Your task to perform on an android device: Toggle the flashlight Image 0: 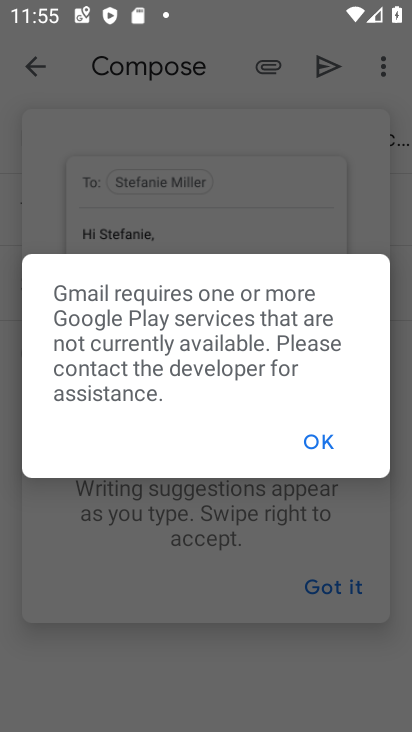
Step 0: press home button
Your task to perform on an android device: Toggle the flashlight Image 1: 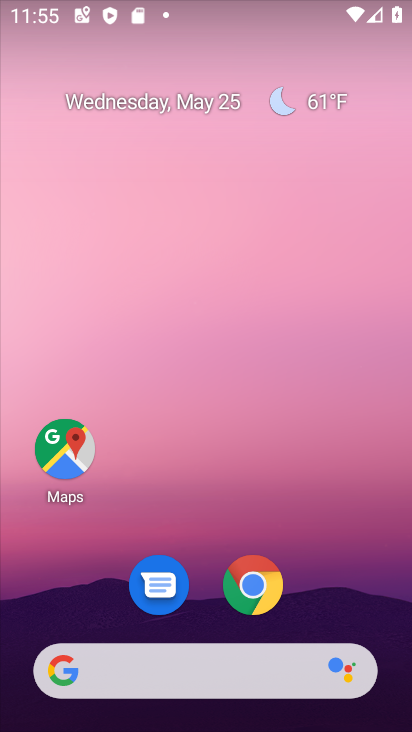
Step 1: drag from (203, 541) to (230, 41)
Your task to perform on an android device: Toggle the flashlight Image 2: 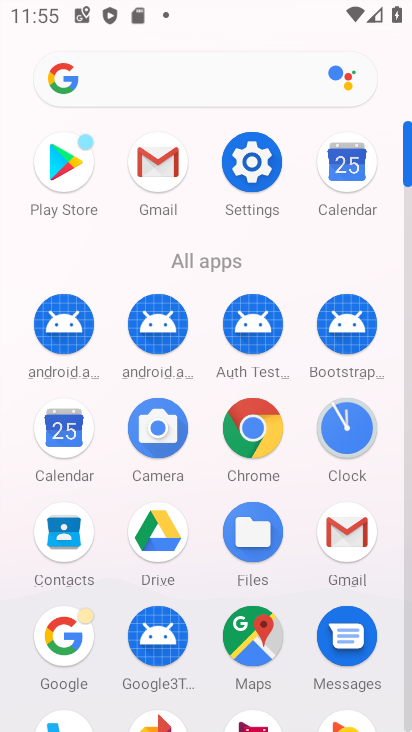
Step 2: click (240, 160)
Your task to perform on an android device: Toggle the flashlight Image 3: 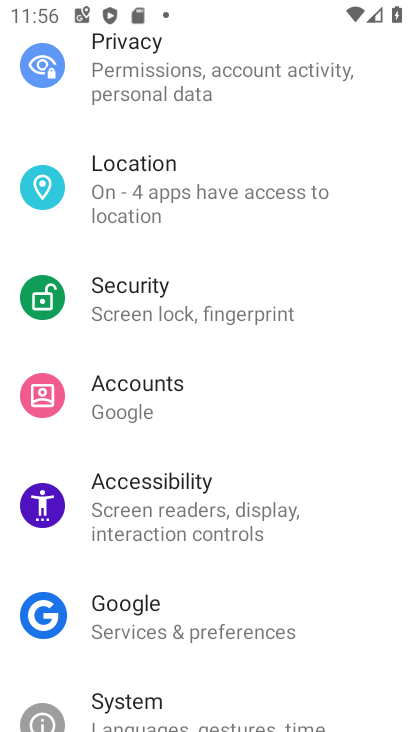
Step 3: drag from (184, 259) to (203, 679)
Your task to perform on an android device: Toggle the flashlight Image 4: 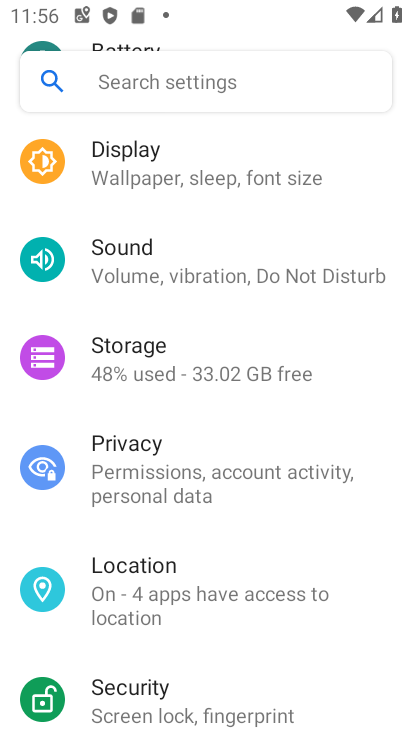
Step 4: click (244, 162)
Your task to perform on an android device: Toggle the flashlight Image 5: 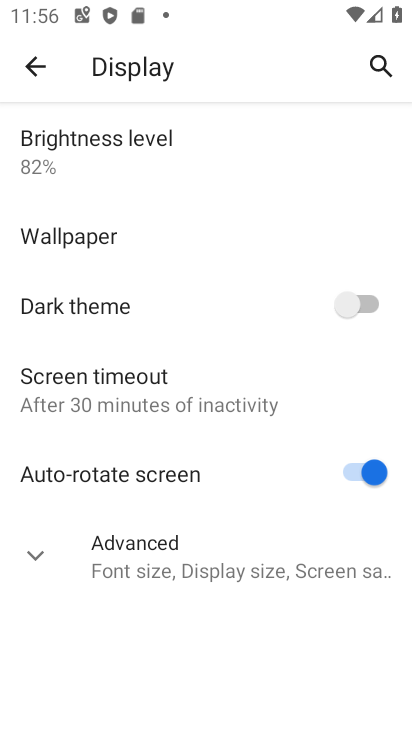
Step 5: click (36, 546)
Your task to perform on an android device: Toggle the flashlight Image 6: 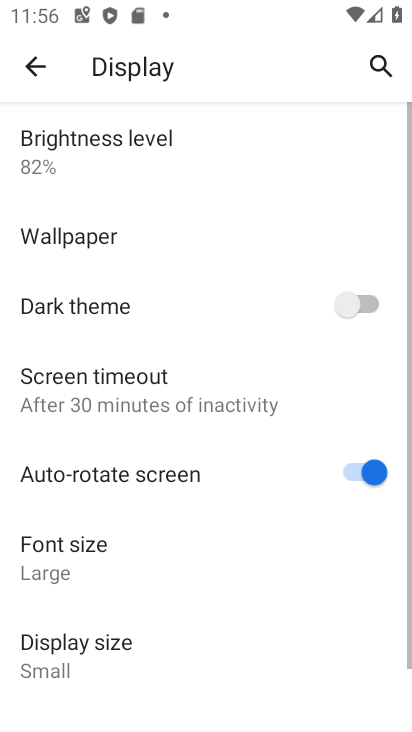
Step 6: click (143, 553)
Your task to perform on an android device: Toggle the flashlight Image 7: 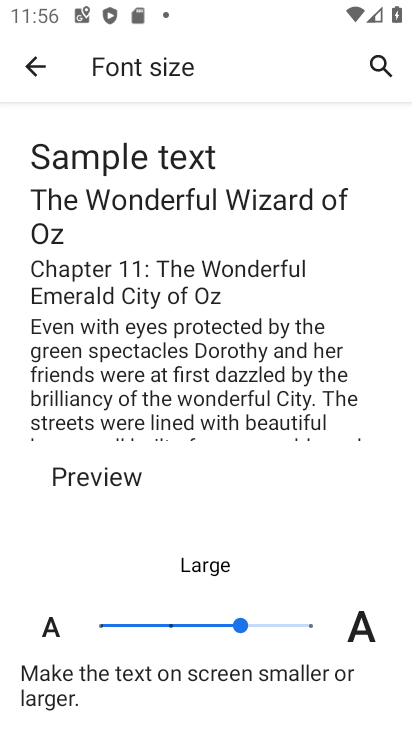
Step 7: click (165, 618)
Your task to perform on an android device: Toggle the flashlight Image 8: 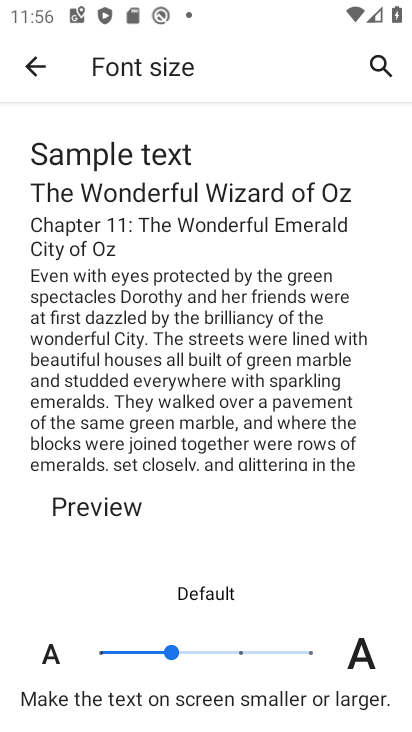
Step 8: click (104, 648)
Your task to perform on an android device: Toggle the flashlight Image 9: 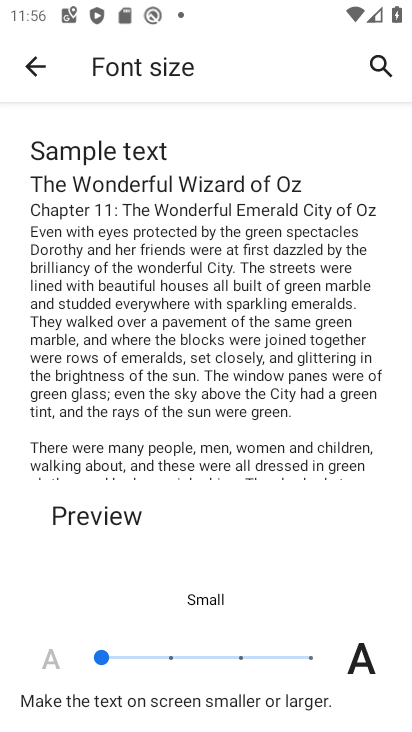
Step 9: click (36, 64)
Your task to perform on an android device: Toggle the flashlight Image 10: 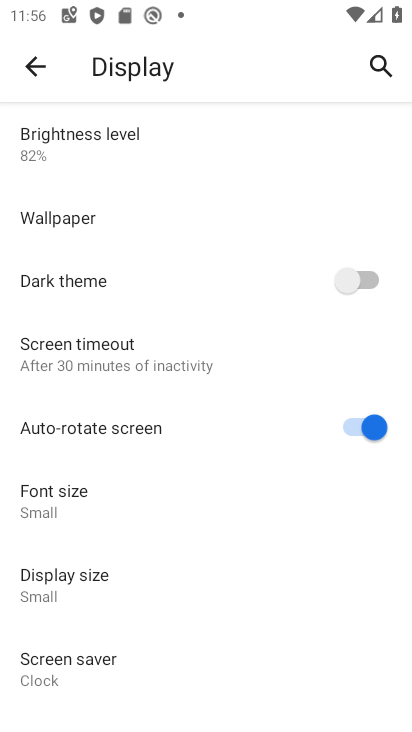
Step 10: click (34, 60)
Your task to perform on an android device: Toggle the flashlight Image 11: 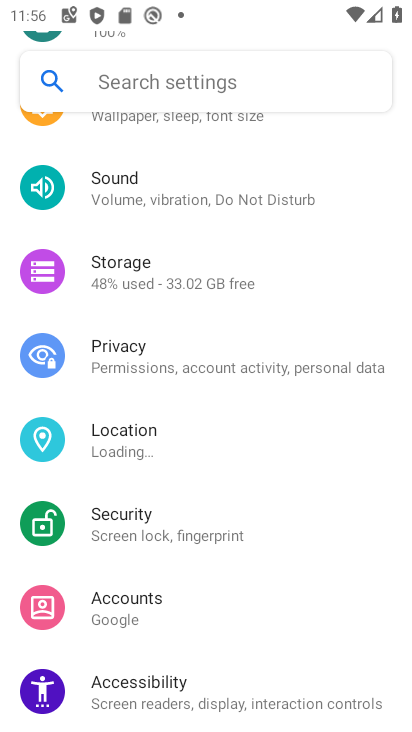
Step 11: drag from (220, 201) to (243, 596)
Your task to perform on an android device: Toggle the flashlight Image 12: 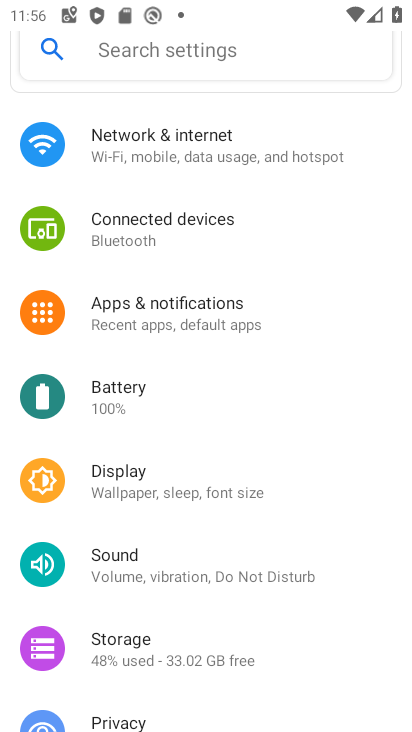
Step 12: drag from (237, 173) to (237, 557)
Your task to perform on an android device: Toggle the flashlight Image 13: 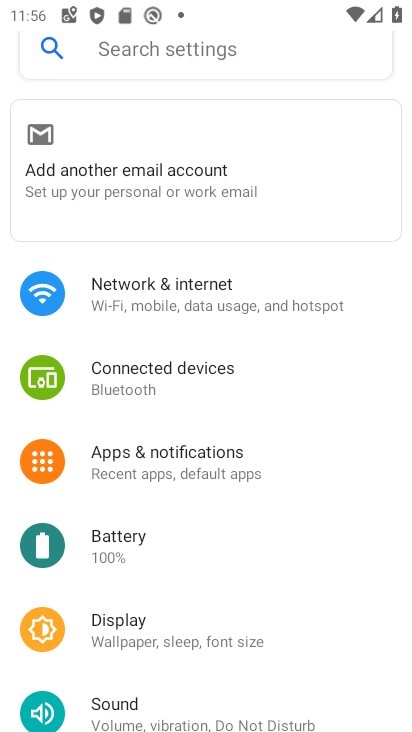
Step 13: click (248, 51)
Your task to perform on an android device: Toggle the flashlight Image 14: 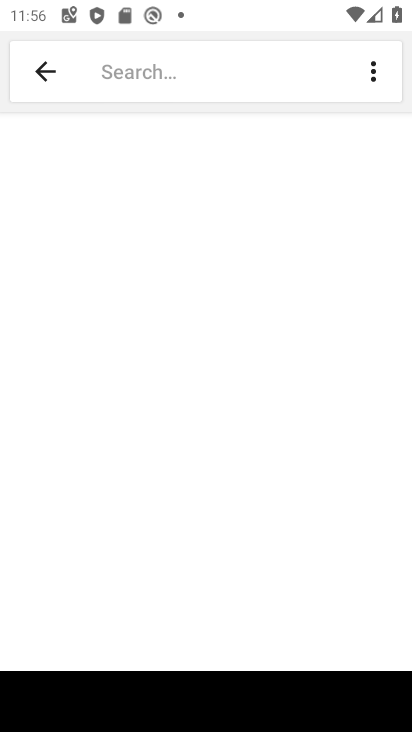
Step 14: type "Flashlight"
Your task to perform on an android device: Toggle the flashlight Image 15: 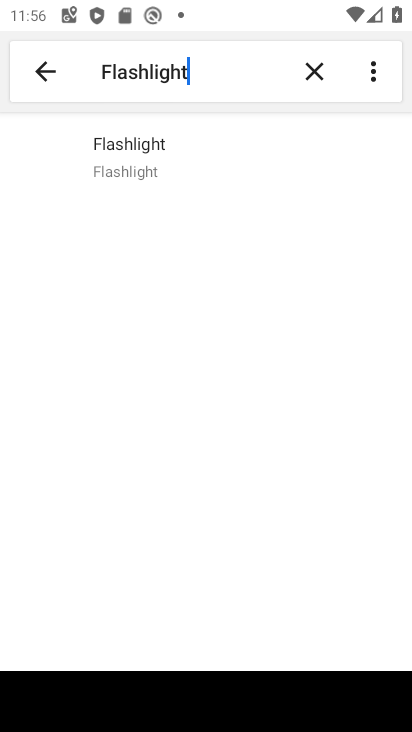
Step 15: click (138, 146)
Your task to perform on an android device: Toggle the flashlight Image 16: 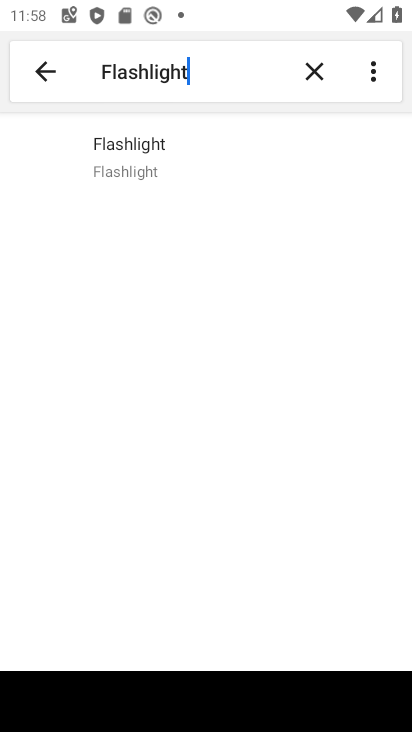
Step 16: task complete